Your task to perform on an android device: Open Google Maps and go to "Timeline" Image 0: 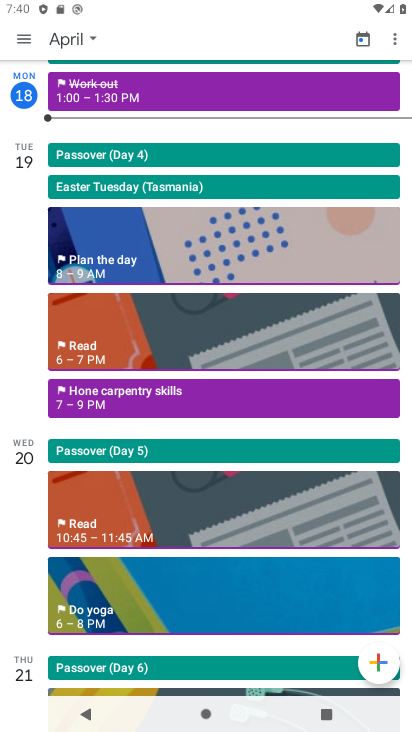
Step 0: press home button
Your task to perform on an android device: Open Google Maps and go to "Timeline" Image 1: 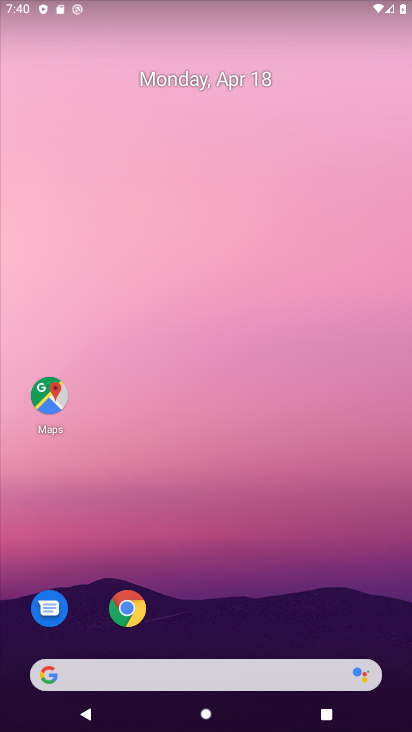
Step 1: click (45, 399)
Your task to perform on an android device: Open Google Maps and go to "Timeline" Image 2: 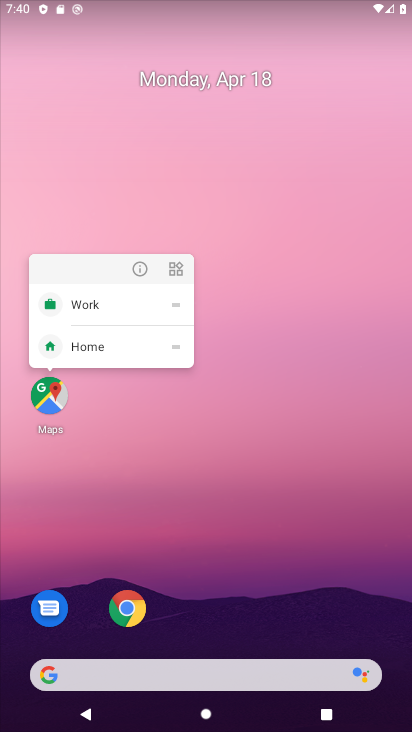
Step 2: click (45, 399)
Your task to perform on an android device: Open Google Maps and go to "Timeline" Image 3: 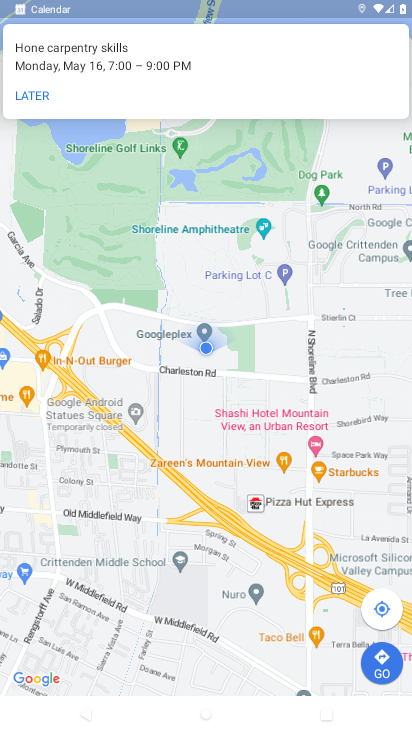
Step 3: click (44, 98)
Your task to perform on an android device: Open Google Maps and go to "Timeline" Image 4: 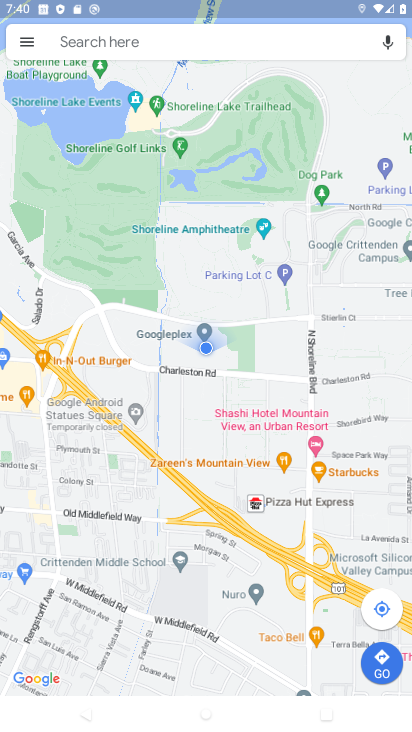
Step 4: click (26, 40)
Your task to perform on an android device: Open Google Maps and go to "Timeline" Image 5: 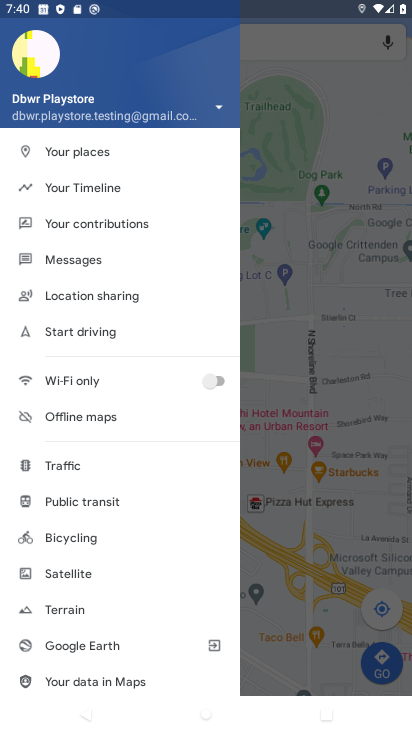
Step 5: click (95, 188)
Your task to perform on an android device: Open Google Maps and go to "Timeline" Image 6: 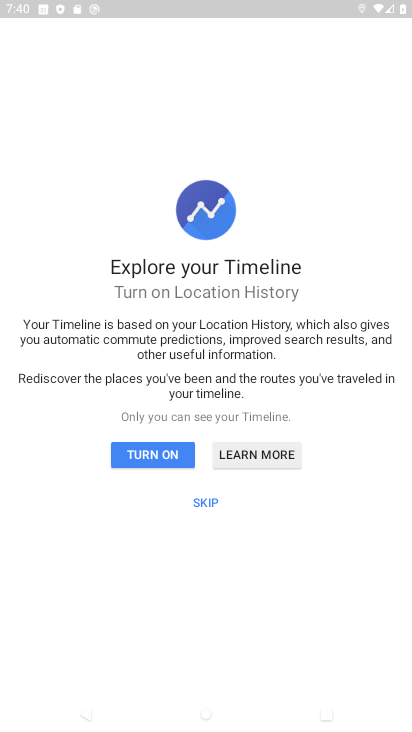
Step 6: click (205, 502)
Your task to perform on an android device: Open Google Maps and go to "Timeline" Image 7: 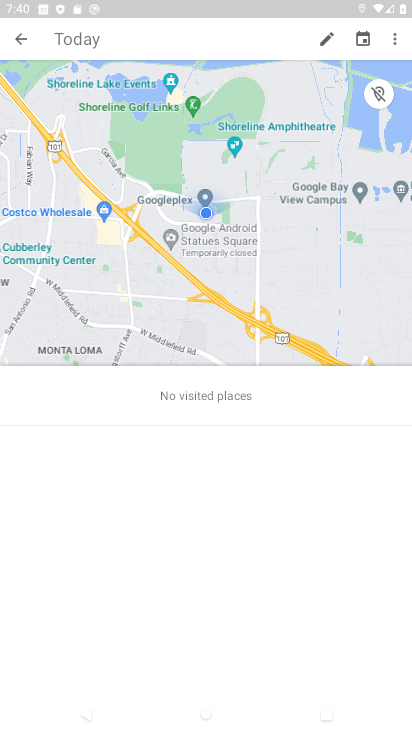
Step 7: task complete